Your task to perform on an android device: Search for Mexican restaurants on Maps Image 0: 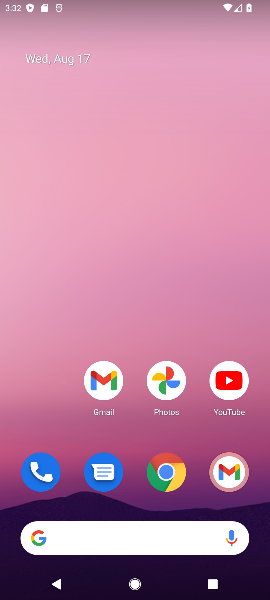
Step 0: drag from (136, 436) to (97, 101)
Your task to perform on an android device: Search for Mexican restaurants on Maps Image 1: 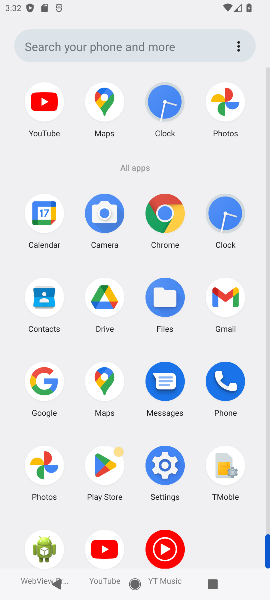
Step 1: click (97, 392)
Your task to perform on an android device: Search for Mexican restaurants on Maps Image 2: 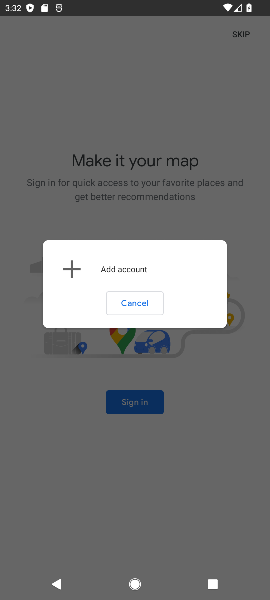
Step 2: click (145, 301)
Your task to perform on an android device: Search for Mexican restaurants on Maps Image 3: 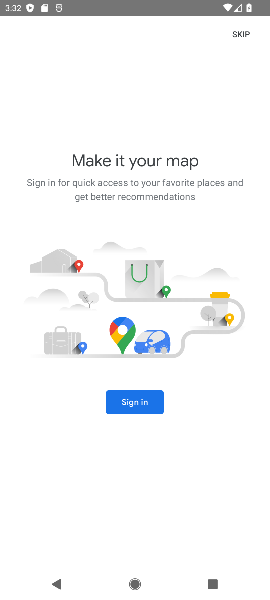
Step 3: click (138, 401)
Your task to perform on an android device: Search for Mexican restaurants on Maps Image 4: 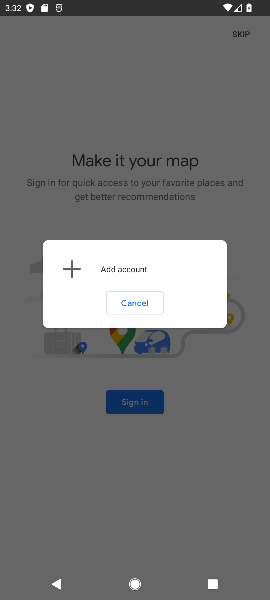
Step 4: click (148, 301)
Your task to perform on an android device: Search for Mexican restaurants on Maps Image 5: 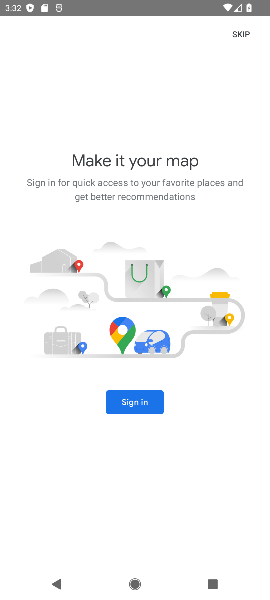
Step 5: task complete